Your task to perform on an android device: Open the phone app and click the voicemail tab. Image 0: 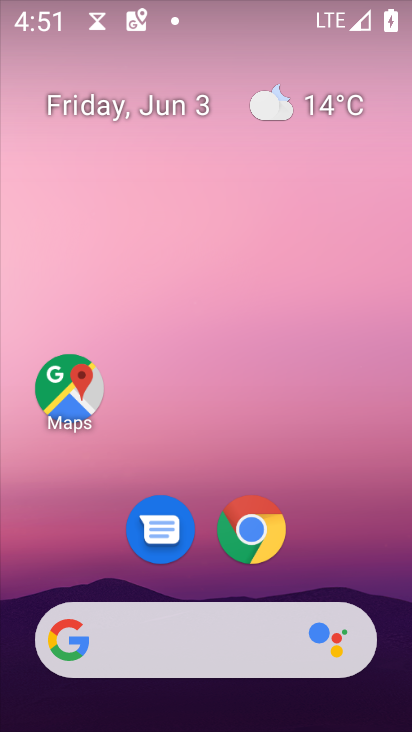
Step 0: drag from (360, 570) to (371, 21)
Your task to perform on an android device: Open the phone app and click the voicemail tab. Image 1: 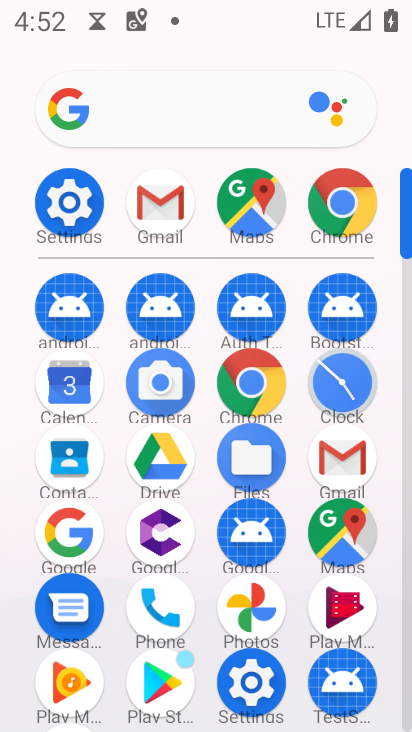
Step 1: drag from (381, 611) to (331, 127)
Your task to perform on an android device: Open the phone app and click the voicemail tab. Image 2: 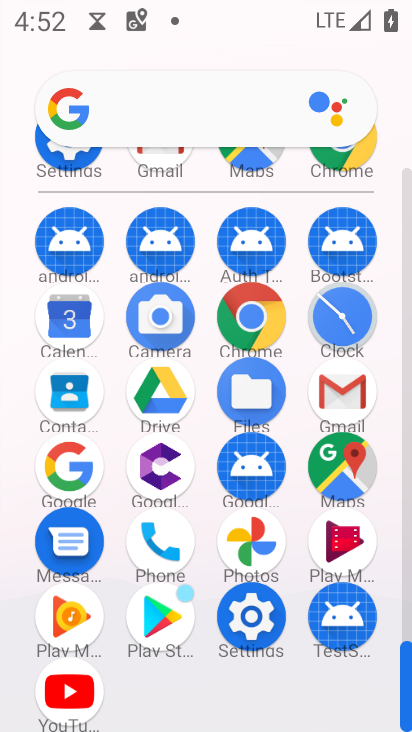
Step 2: click (172, 545)
Your task to perform on an android device: Open the phone app and click the voicemail tab. Image 3: 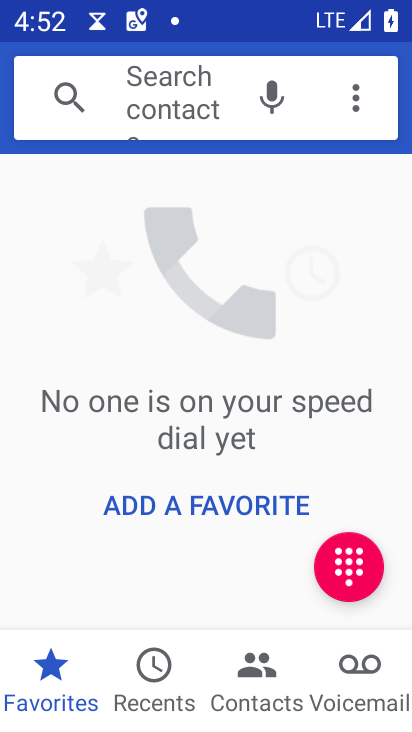
Step 3: click (358, 691)
Your task to perform on an android device: Open the phone app and click the voicemail tab. Image 4: 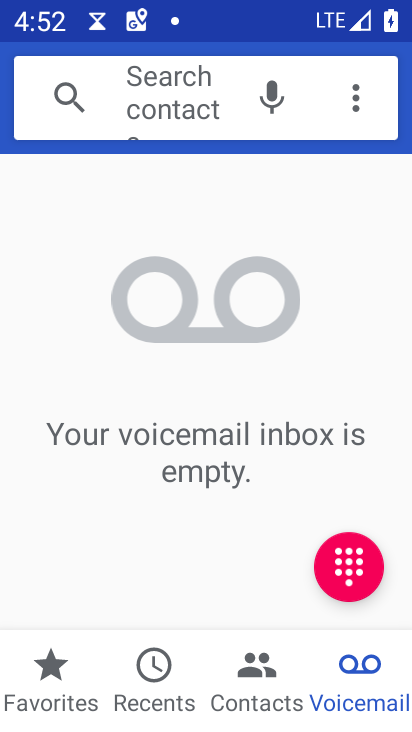
Step 4: task complete